Your task to perform on an android device: clear history in the chrome app Image 0: 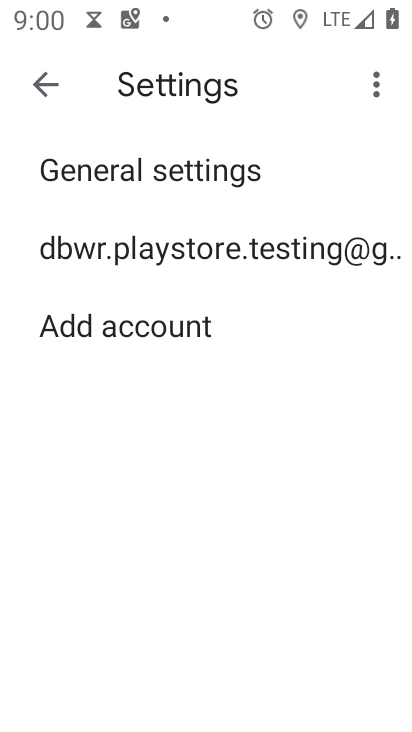
Step 0: press home button
Your task to perform on an android device: clear history in the chrome app Image 1: 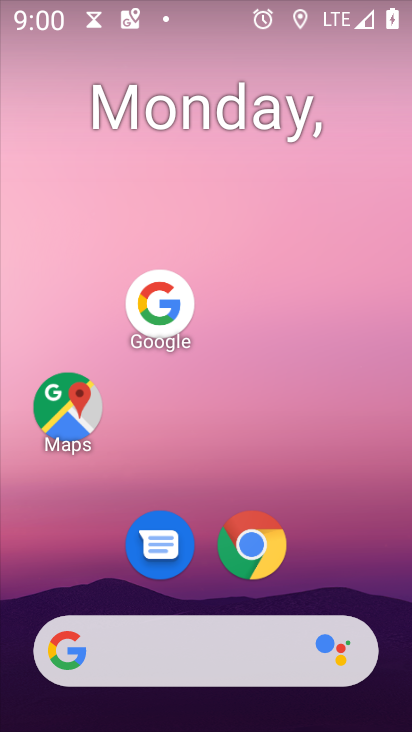
Step 1: click (264, 549)
Your task to perform on an android device: clear history in the chrome app Image 2: 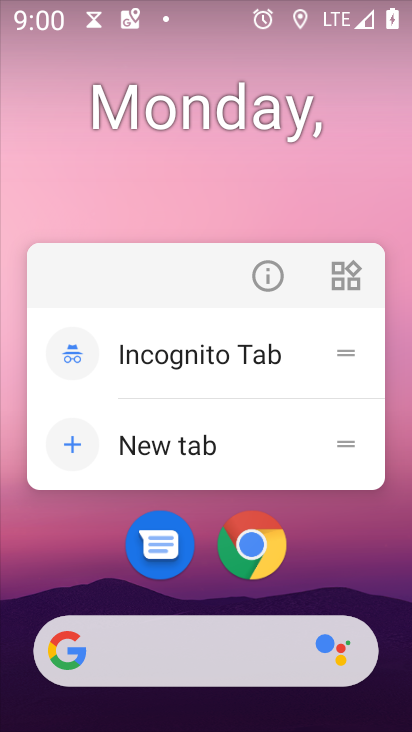
Step 2: click (247, 561)
Your task to perform on an android device: clear history in the chrome app Image 3: 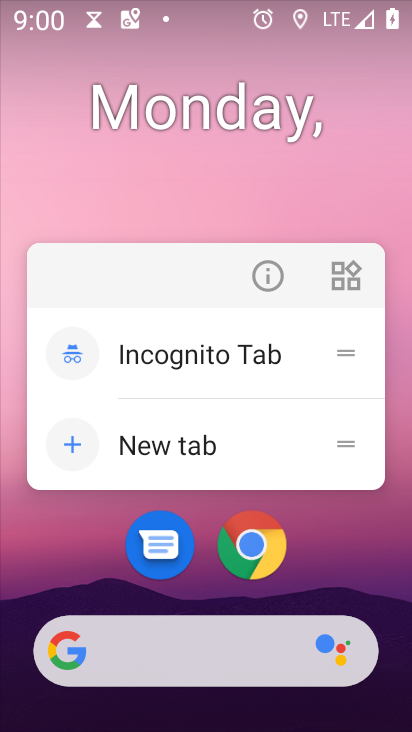
Step 3: click (248, 540)
Your task to perform on an android device: clear history in the chrome app Image 4: 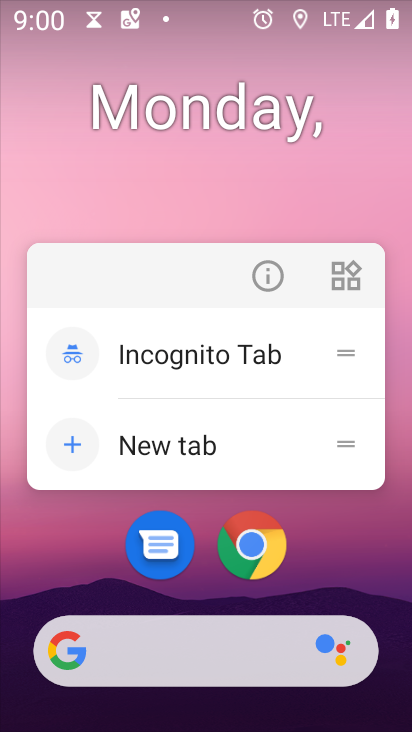
Step 4: click (254, 551)
Your task to perform on an android device: clear history in the chrome app Image 5: 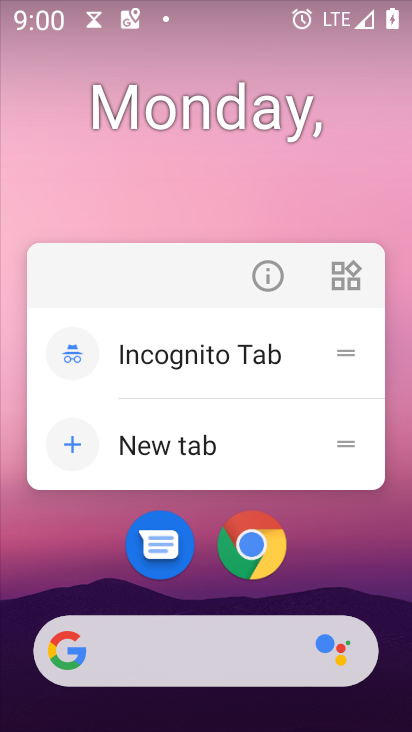
Step 5: click (254, 551)
Your task to perform on an android device: clear history in the chrome app Image 6: 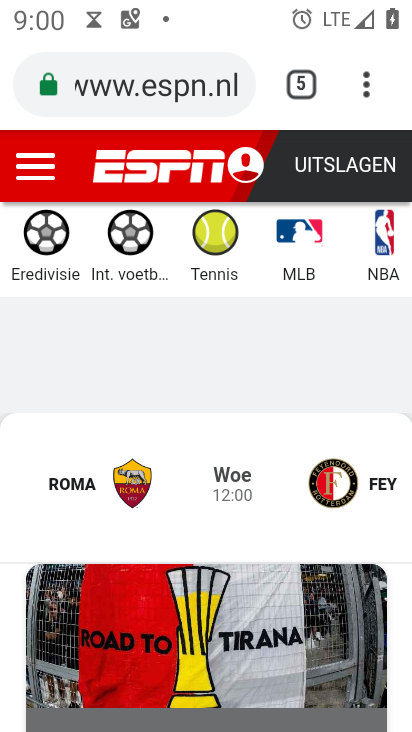
Step 6: drag from (368, 89) to (163, 480)
Your task to perform on an android device: clear history in the chrome app Image 7: 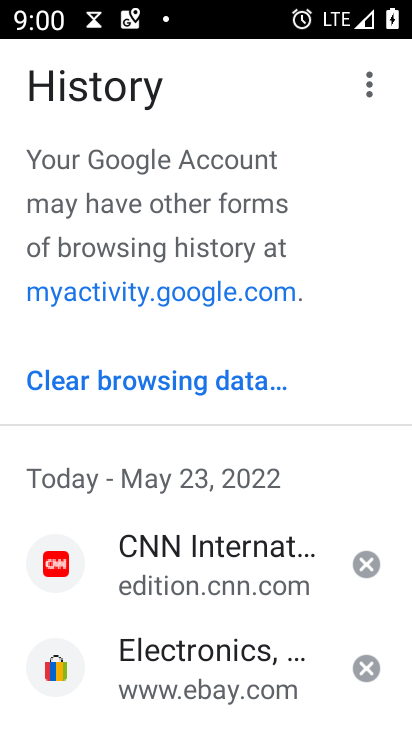
Step 7: click (144, 387)
Your task to perform on an android device: clear history in the chrome app Image 8: 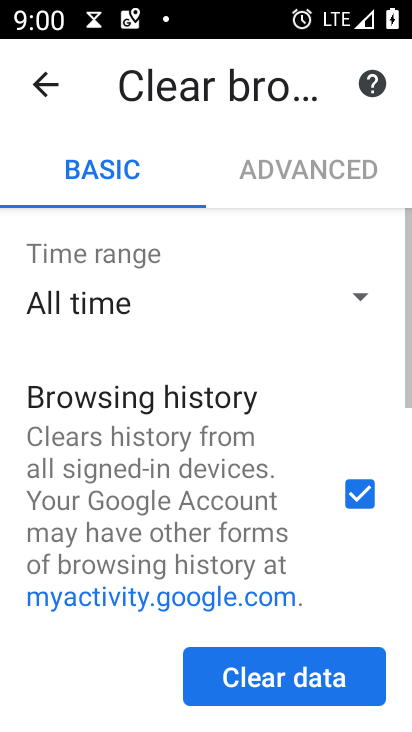
Step 8: drag from (153, 598) to (346, 209)
Your task to perform on an android device: clear history in the chrome app Image 9: 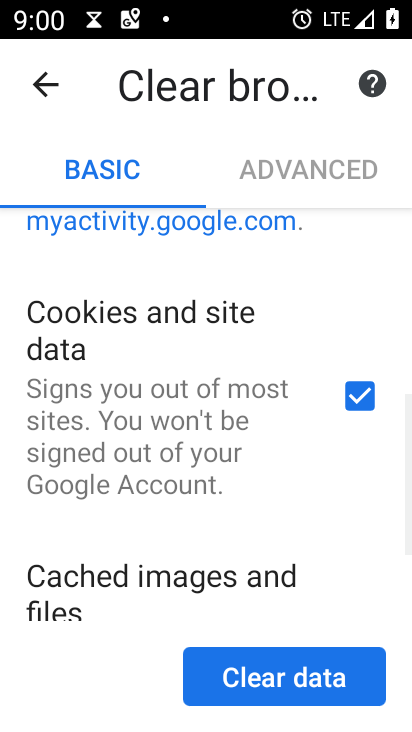
Step 9: drag from (240, 540) to (358, 272)
Your task to perform on an android device: clear history in the chrome app Image 10: 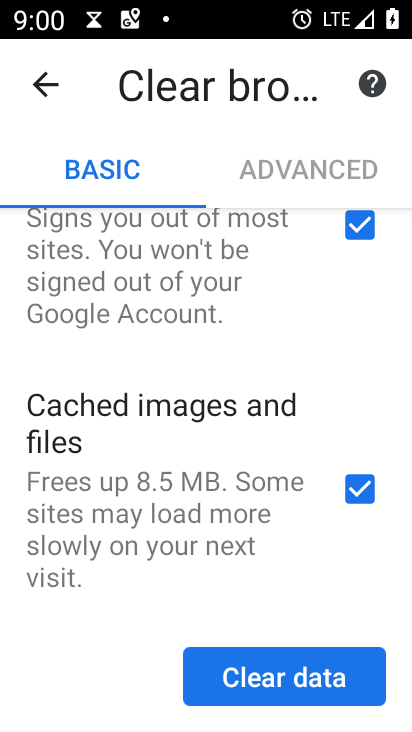
Step 10: click (269, 684)
Your task to perform on an android device: clear history in the chrome app Image 11: 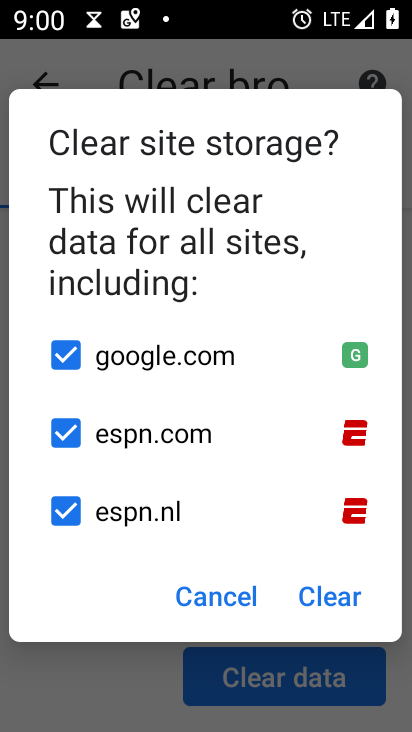
Step 11: click (323, 594)
Your task to perform on an android device: clear history in the chrome app Image 12: 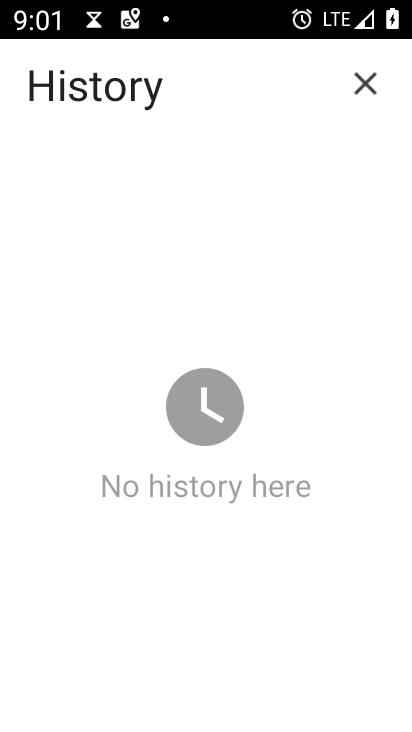
Step 12: task complete